Your task to perform on an android device: Open the phone app and click the voicemail tab. Image 0: 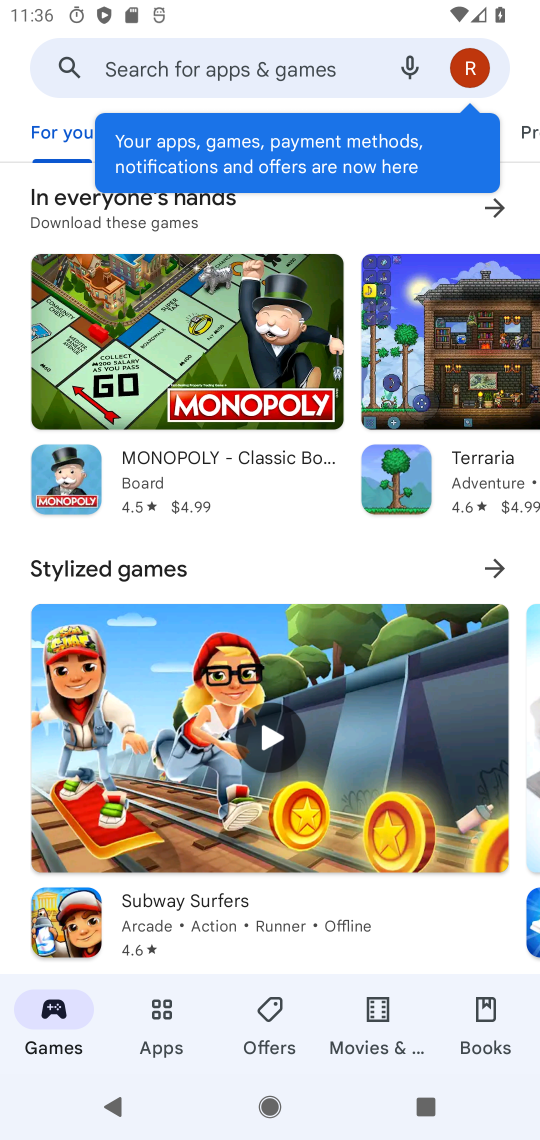
Step 0: press home button
Your task to perform on an android device: Open the phone app and click the voicemail tab. Image 1: 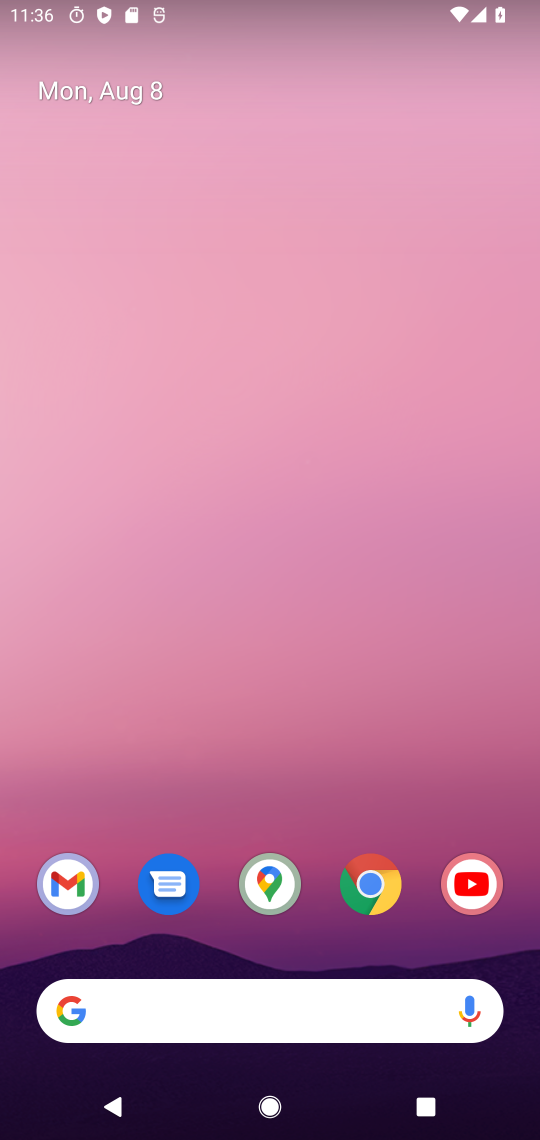
Step 1: drag from (239, 932) to (307, 159)
Your task to perform on an android device: Open the phone app and click the voicemail tab. Image 2: 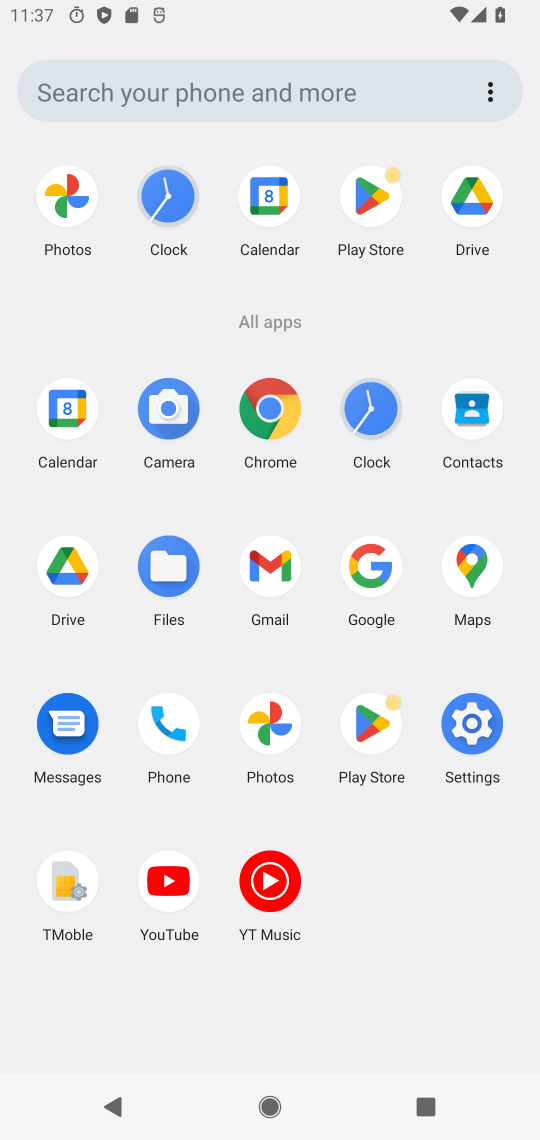
Step 2: click (167, 732)
Your task to perform on an android device: Open the phone app and click the voicemail tab. Image 3: 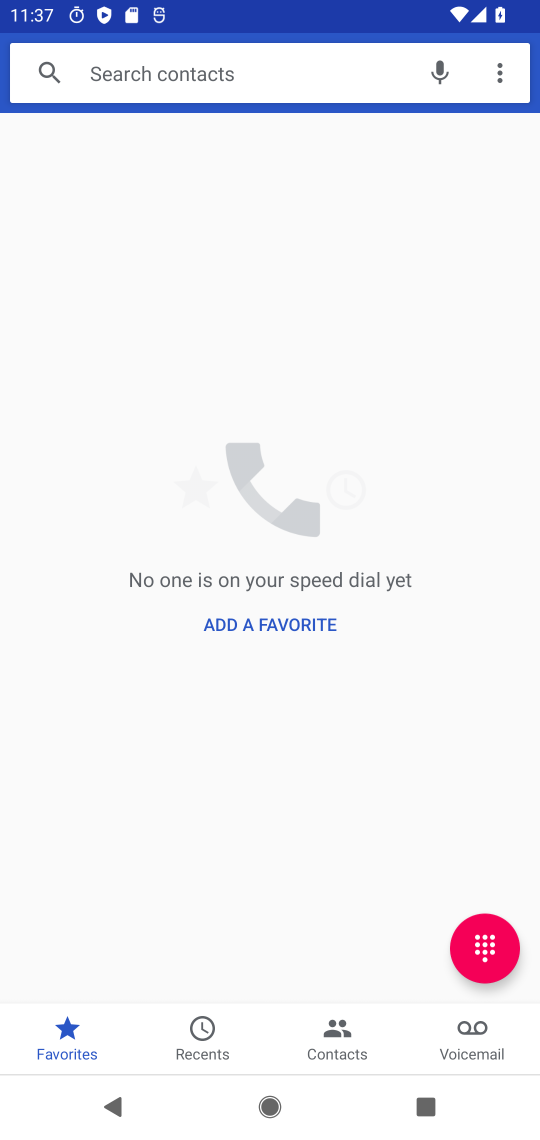
Step 3: click (468, 1048)
Your task to perform on an android device: Open the phone app and click the voicemail tab. Image 4: 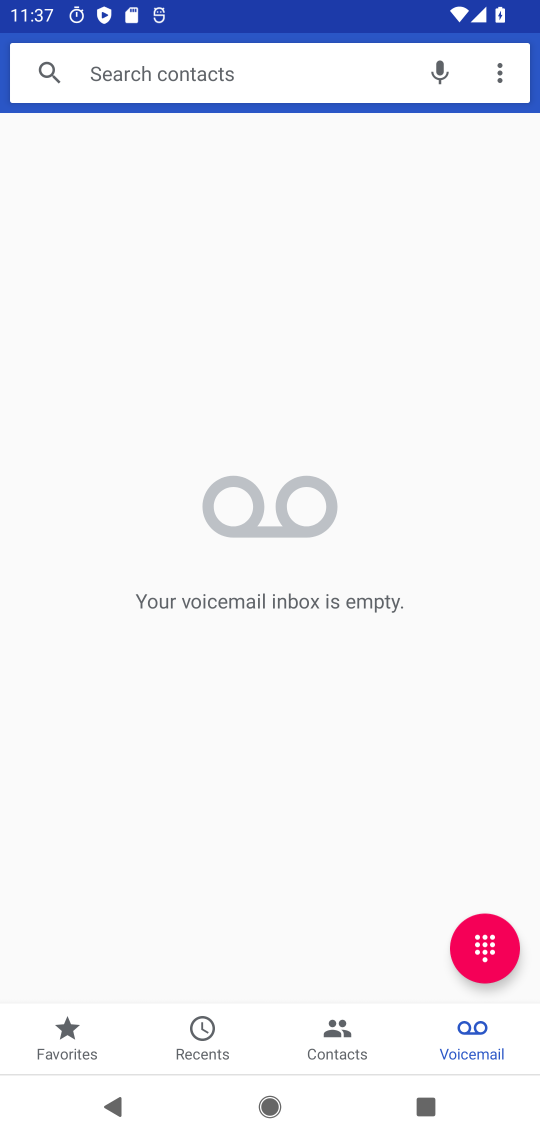
Step 4: task complete